Your task to perform on an android device: toggle improve location accuracy Image 0: 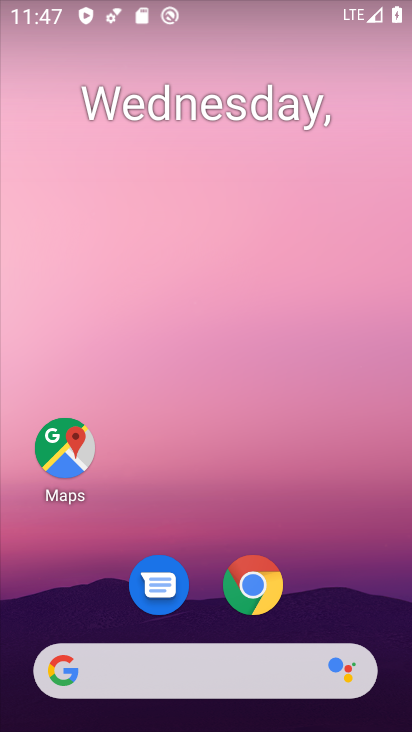
Step 0: drag from (213, 479) to (235, 46)
Your task to perform on an android device: toggle improve location accuracy Image 1: 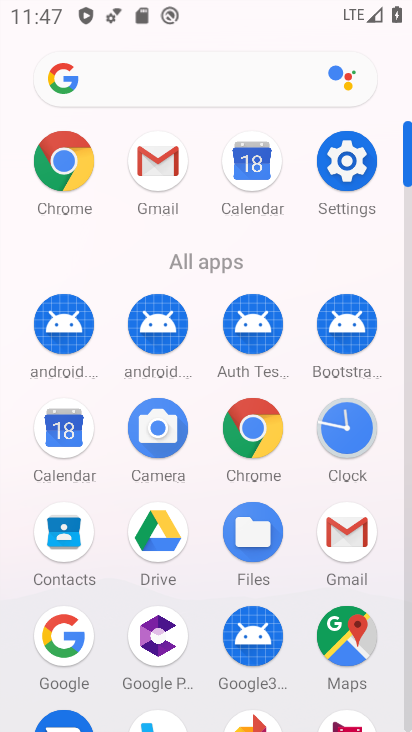
Step 1: click (343, 168)
Your task to perform on an android device: toggle improve location accuracy Image 2: 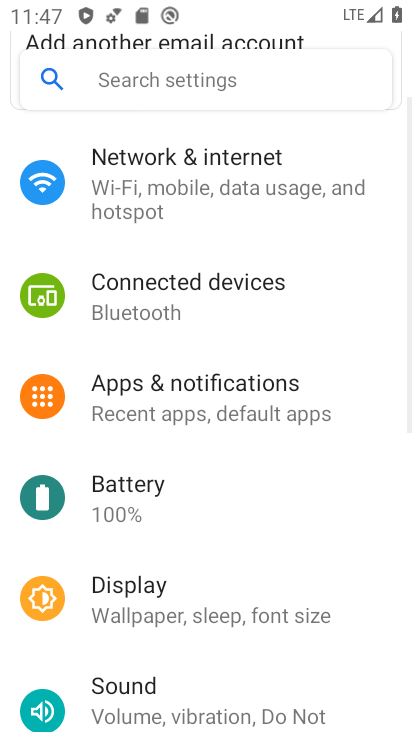
Step 2: drag from (253, 452) to (255, 144)
Your task to perform on an android device: toggle improve location accuracy Image 3: 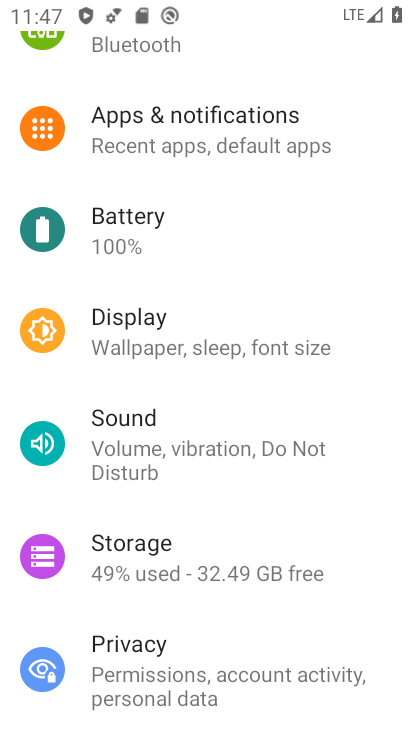
Step 3: drag from (237, 459) to (244, 108)
Your task to perform on an android device: toggle improve location accuracy Image 4: 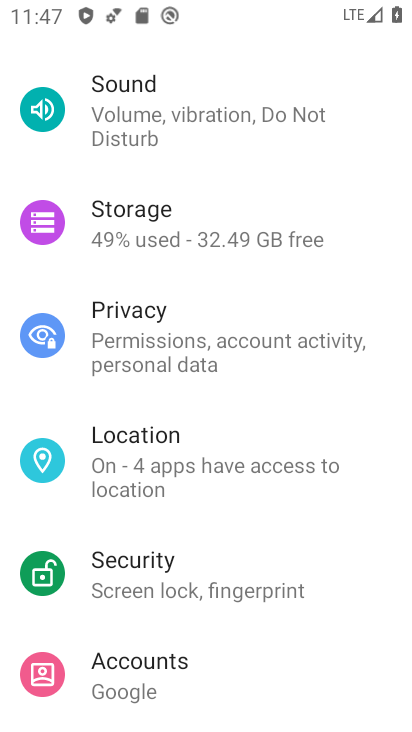
Step 4: click (201, 458)
Your task to perform on an android device: toggle improve location accuracy Image 5: 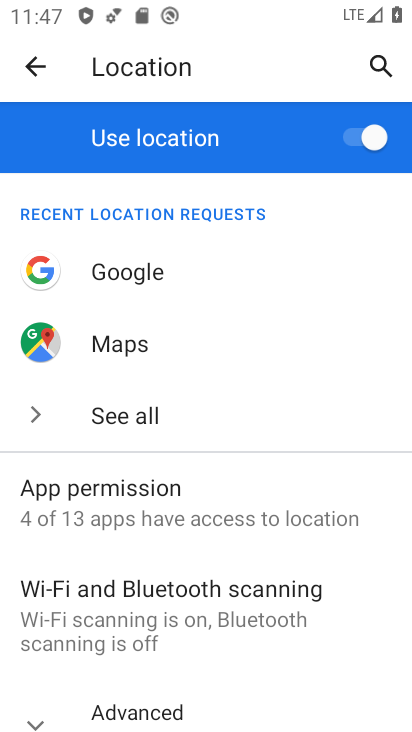
Step 5: click (357, 137)
Your task to perform on an android device: toggle improve location accuracy Image 6: 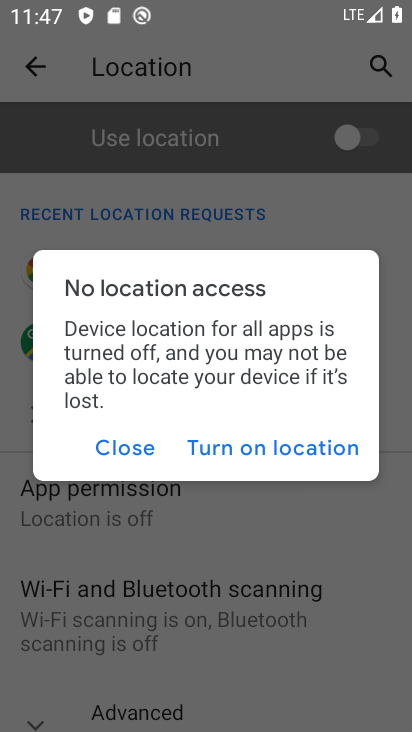
Step 6: click (135, 442)
Your task to perform on an android device: toggle improve location accuracy Image 7: 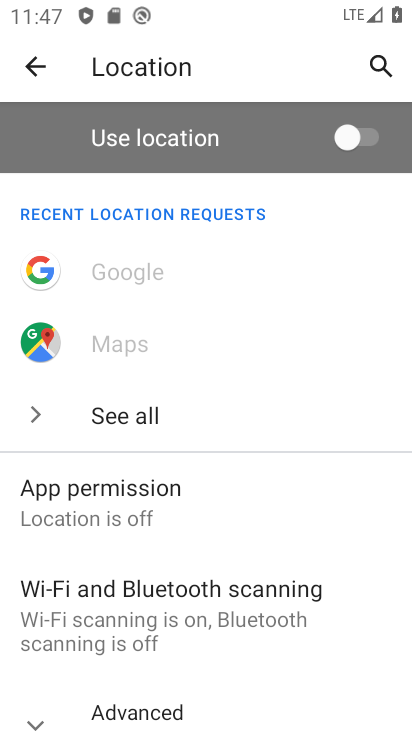
Step 7: click (369, 135)
Your task to perform on an android device: toggle improve location accuracy Image 8: 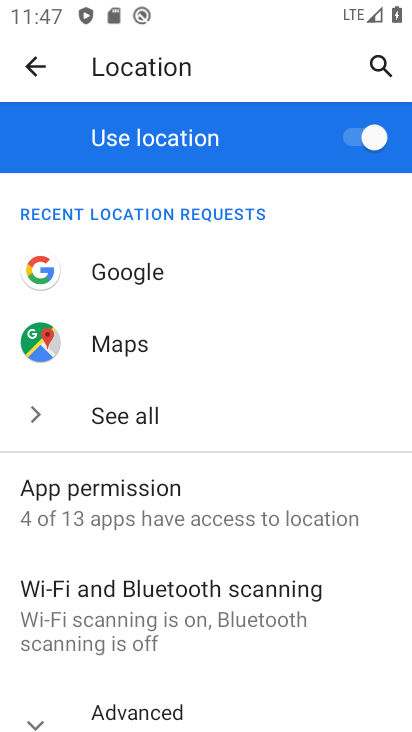
Step 8: drag from (253, 499) to (275, 250)
Your task to perform on an android device: toggle improve location accuracy Image 9: 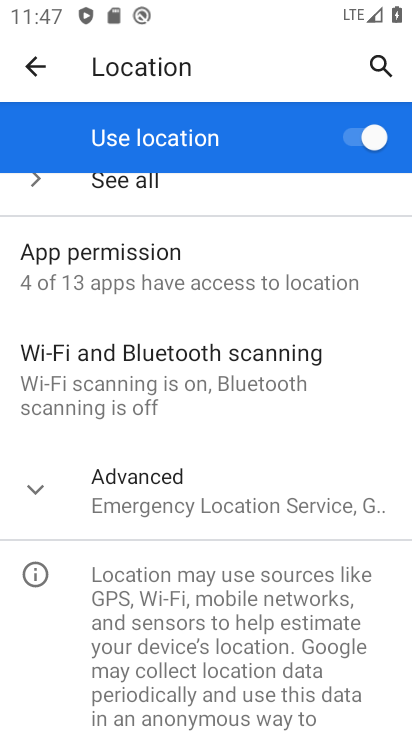
Step 9: click (29, 476)
Your task to perform on an android device: toggle improve location accuracy Image 10: 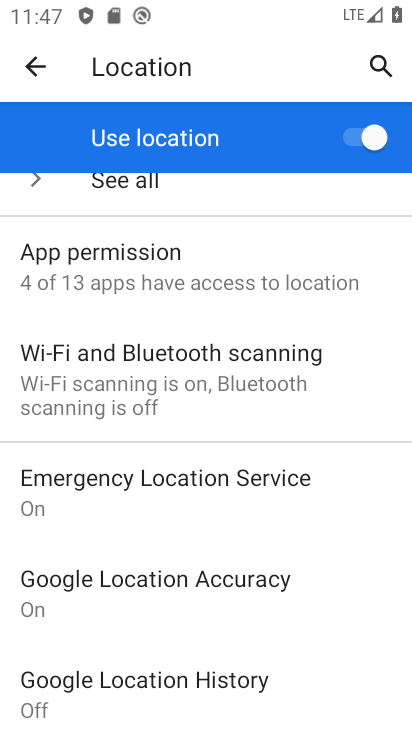
Step 10: click (196, 592)
Your task to perform on an android device: toggle improve location accuracy Image 11: 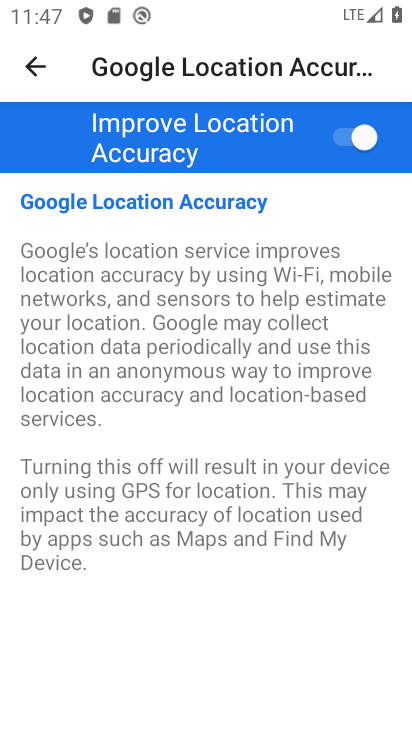
Step 11: click (349, 139)
Your task to perform on an android device: toggle improve location accuracy Image 12: 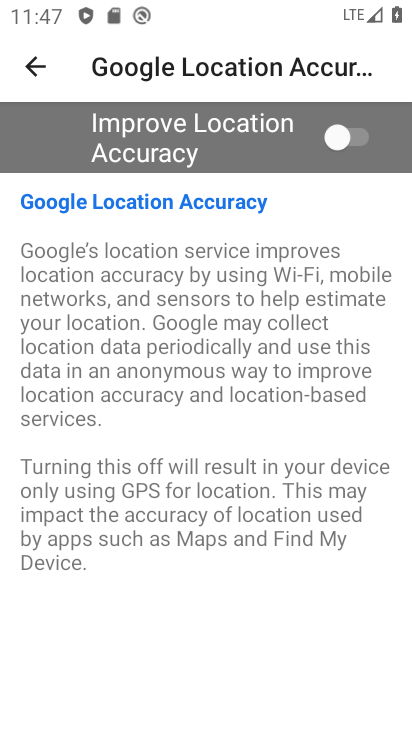
Step 12: task complete